Your task to perform on an android device: What's the weather today? Image 0: 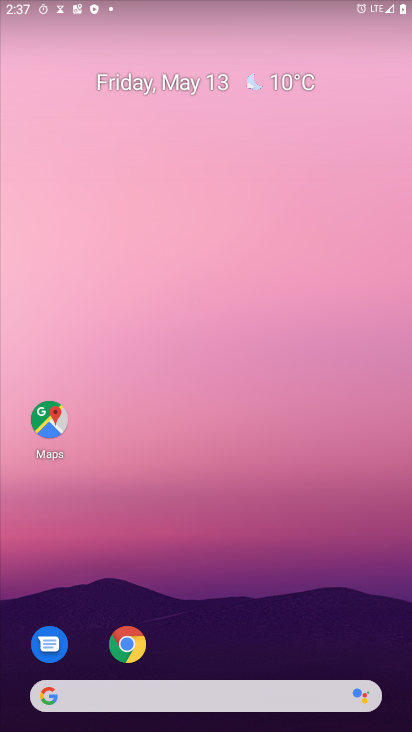
Step 0: click (253, 80)
Your task to perform on an android device: What's the weather today? Image 1: 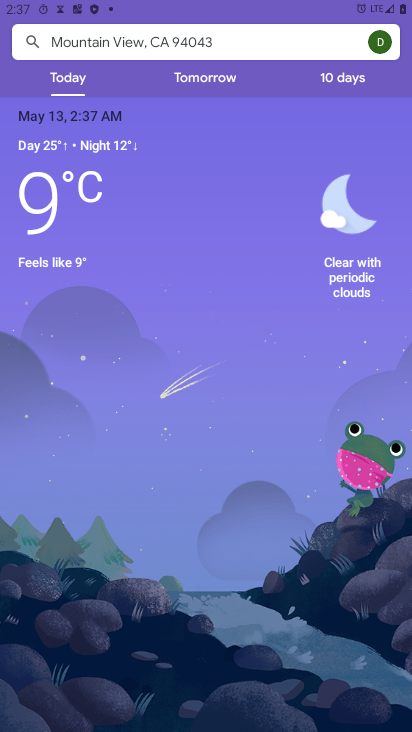
Step 1: task complete